Your task to perform on an android device: Add "beats solo 3" to the cart on target.com Image 0: 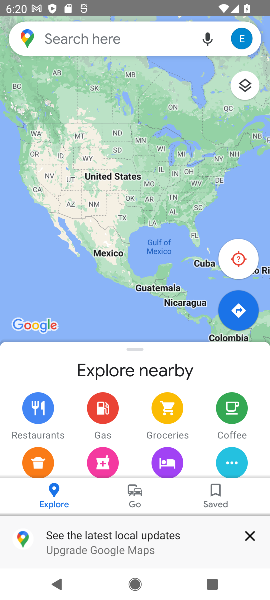
Step 0: press home button
Your task to perform on an android device: Add "beats solo 3" to the cart on target.com Image 1: 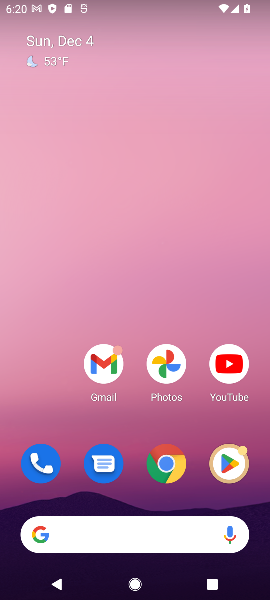
Step 1: click (112, 545)
Your task to perform on an android device: Add "beats solo 3" to the cart on target.com Image 2: 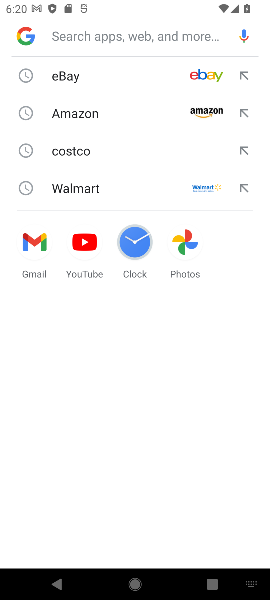
Step 2: type "target"
Your task to perform on an android device: Add "beats solo 3" to the cart on target.com Image 3: 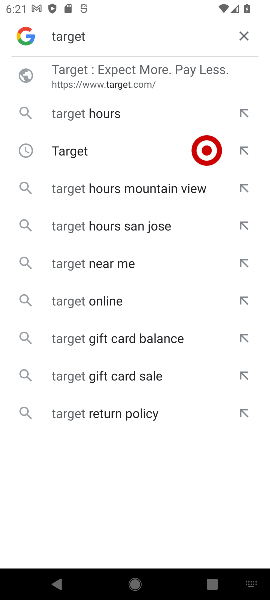
Step 3: click (157, 75)
Your task to perform on an android device: Add "beats solo 3" to the cart on target.com Image 4: 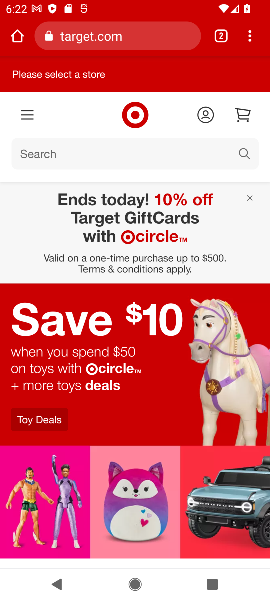
Step 4: task complete